Your task to perform on an android device: turn on the 12-hour format for clock Image 0: 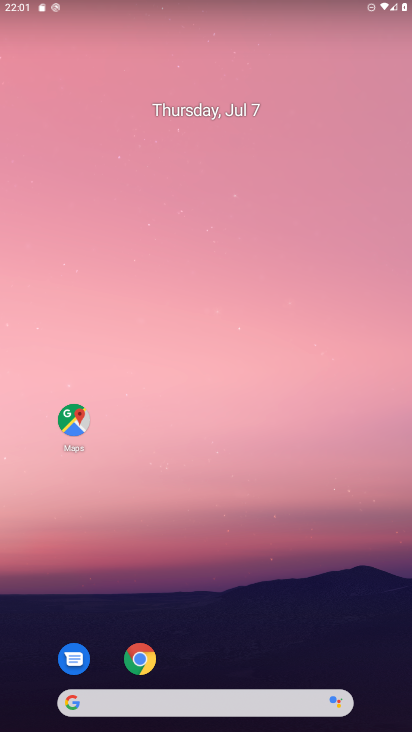
Step 0: drag from (186, 587) to (161, 51)
Your task to perform on an android device: turn on the 12-hour format for clock Image 1: 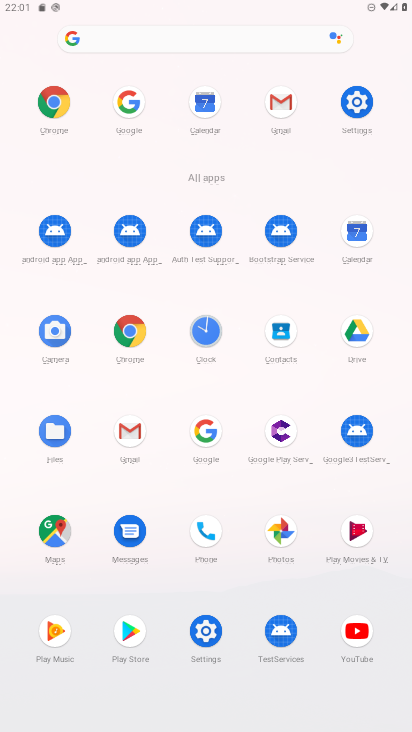
Step 1: click (202, 324)
Your task to perform on an android device: turn on the 12-hour format for clock Image 2: 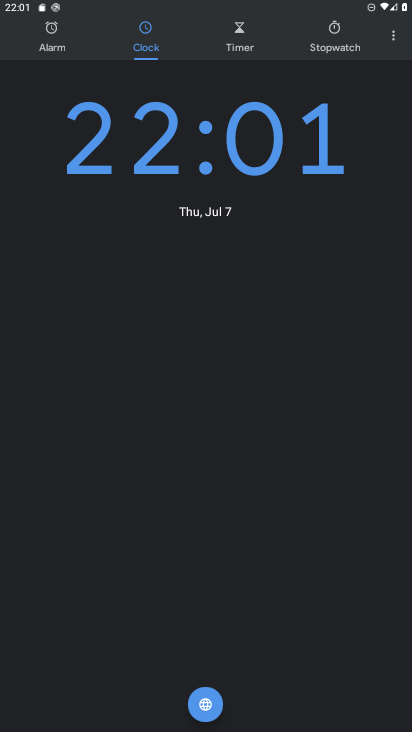
Step 2: click (394, 37)
Your task to perform on an android device: turn on the 12-hour format for clock Image 3: 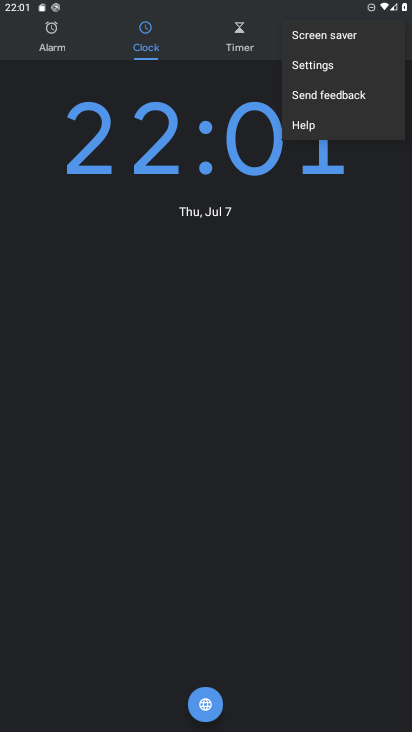
Step 3: click (314, 63)
Your task to perform on an android device: turn on the 12-hour format for clock Image 4: 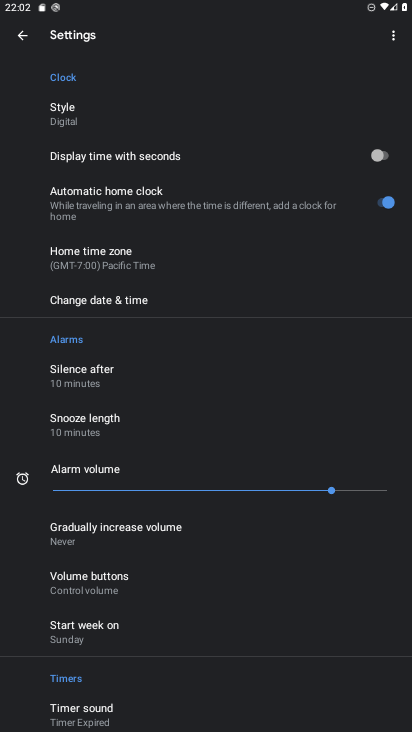
Step 4: click (103, 299)
Your task to perform on an android device: turn on the 12-hour format for clock Image 5: 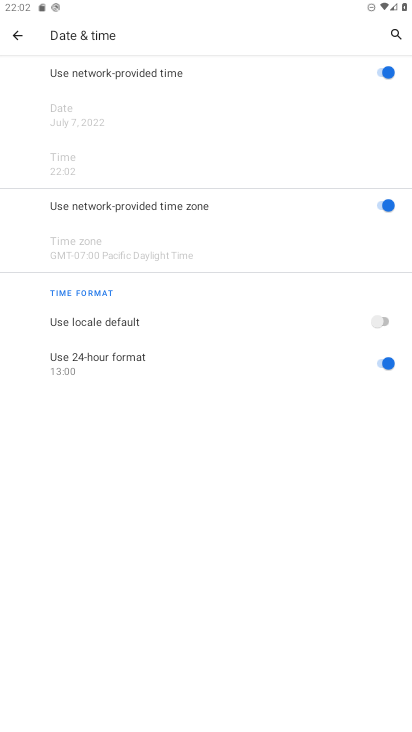
Step 5: click (384, 320)
Your task to perform on an android device: turn on the 12-hour format for clock Image 6: 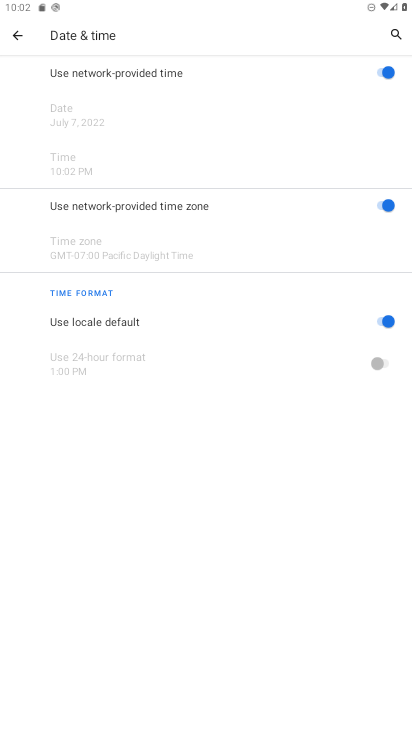
Step 6: task complete